Your task to perform on an android device: Go to Reddit.com Image 0: 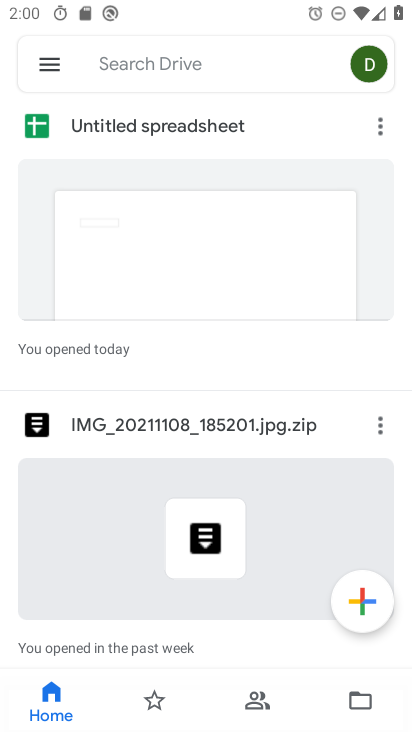
Step 0: press home button
Your task to perform on an android device: Go to Reddit.com Image 1: 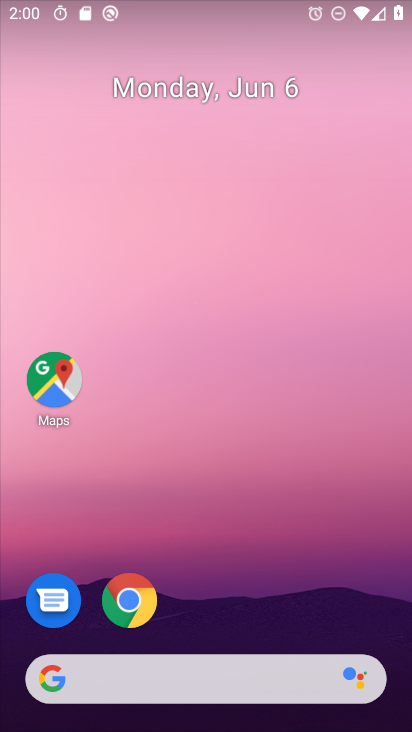
Step 1: click (117, 590)
Your task to perform on an android device: Go to Reddit.com Image 2: 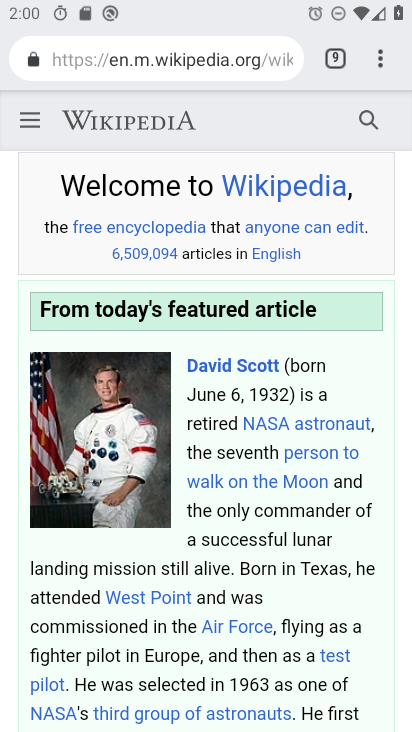
Step 2: click (334, 67)
Your task to perform on an android device: Go to Reddit.com Image 3: 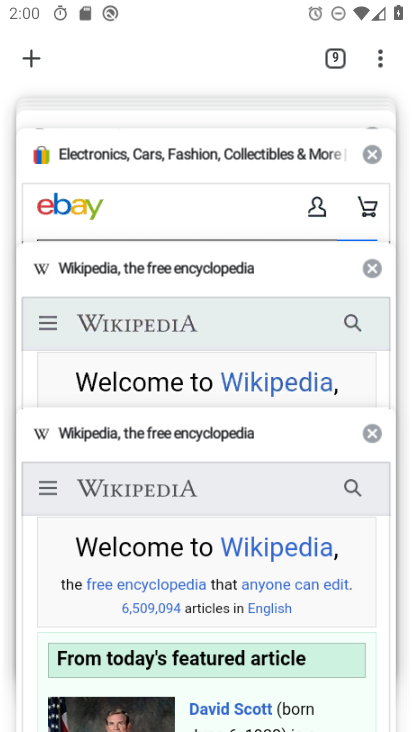
Step 3: click (37, 61)
Your task to perform on an android device: Go to Reddit.com Image 4: 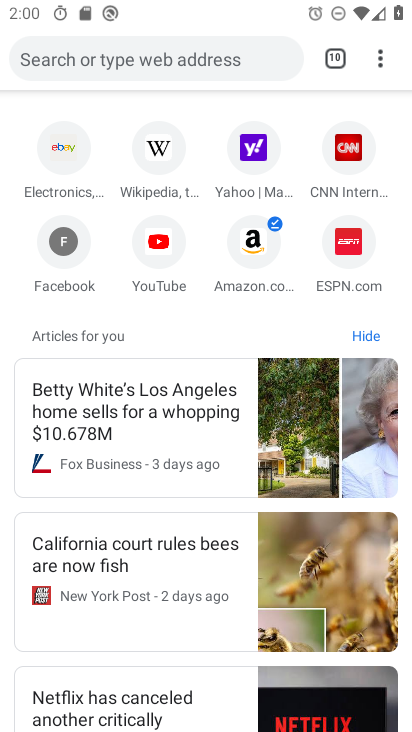
Step 4: click (137, 61)
Your task to perform on an android device: Go to Reddit.com Image 5: 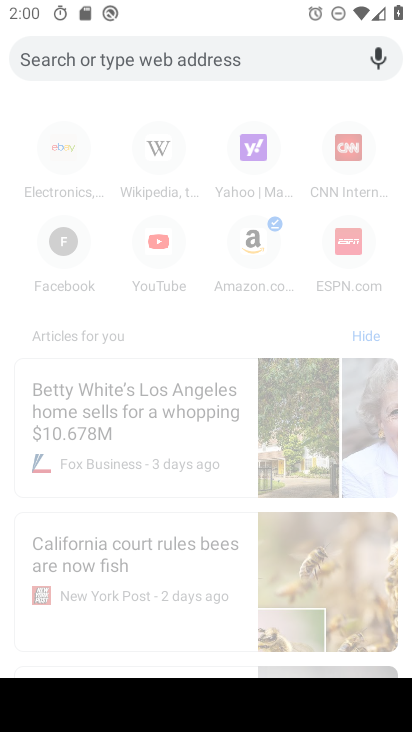
Step 5: type "Reddit.com"
Your task to perform on an android device: Go to Reddit.com Image 6: 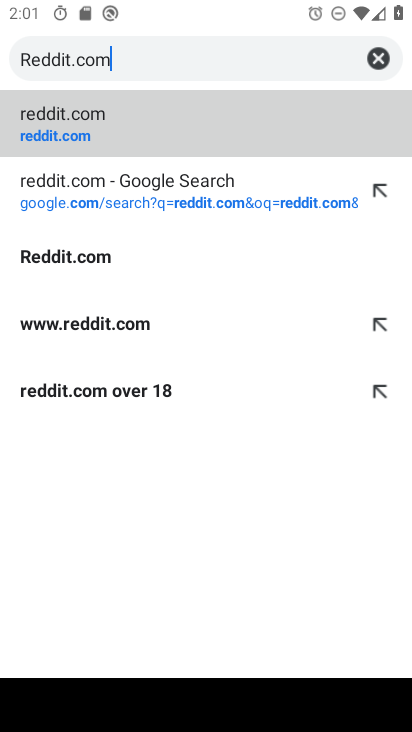
Step 6: click (130, 125)
Your task to perform on an android device: Go to Reddit.com Image 7: 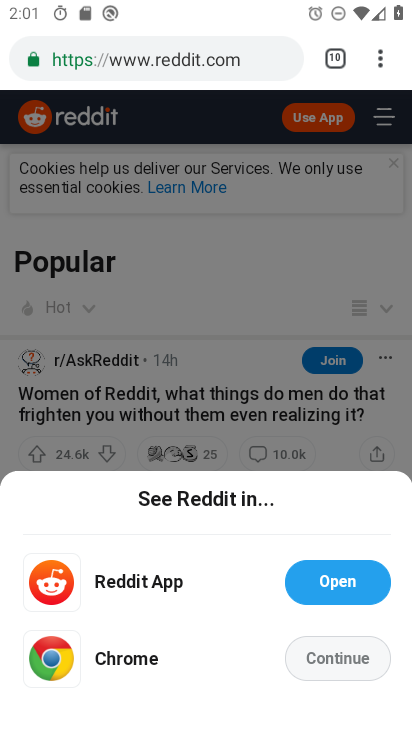
Step 7: click (378, 663)
Your task to perform on an android device: Go to Reddit.com Image 8: 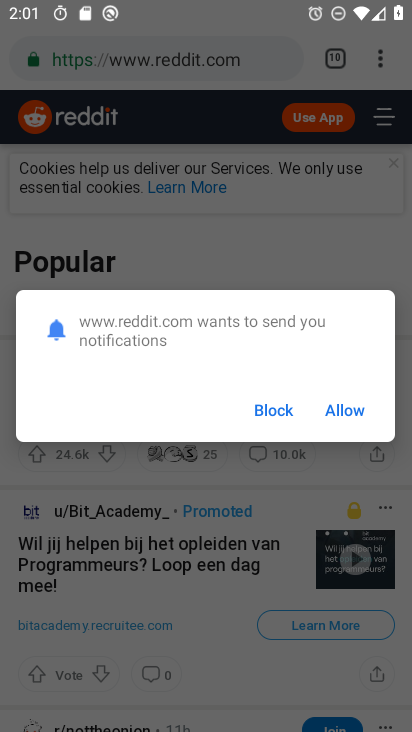
Step 8: task complete